Your task to perform on an android device: Open accessibility settings Image 0: 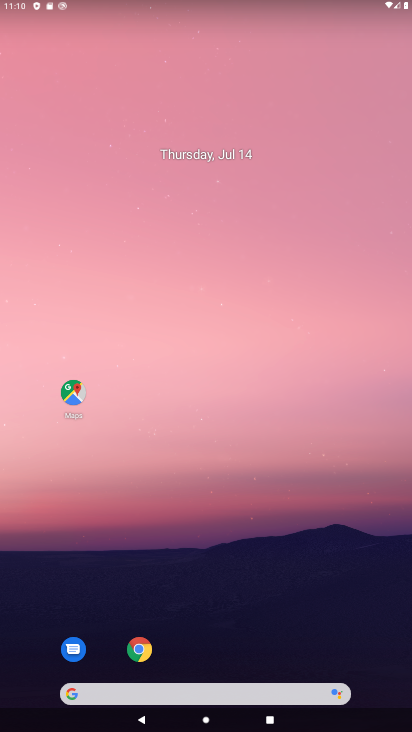
Step 0: drag from (175, 578) to (175, 157)
Your task to perform on an android device: Open accessibility settings Image 1: 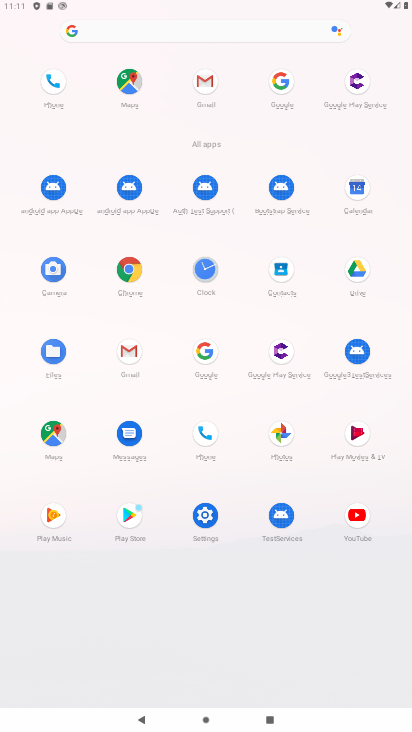
Step 1: click (210, 512)
Your task to perform on an android device: Open accessibility settings Image 2: 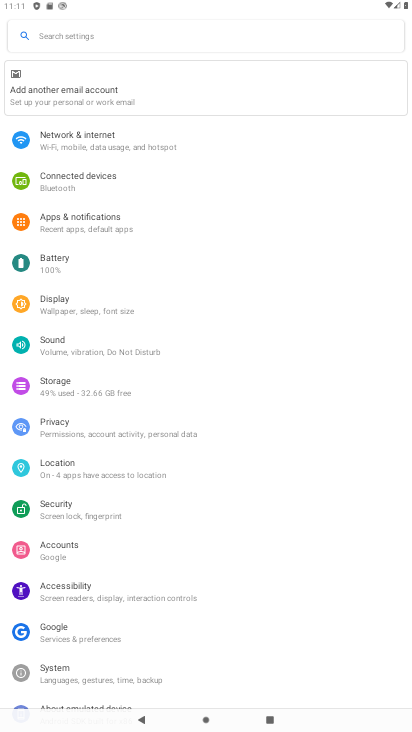
Step 2: click (73, 592)
Your task to perform on an android device: Open accessibility settings Image 3: 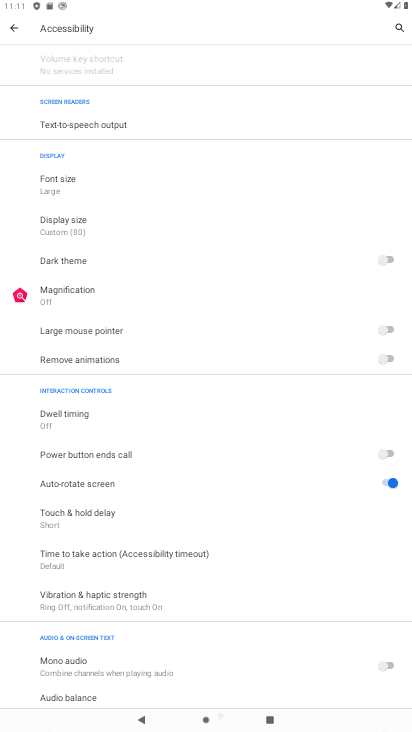
Step 3: task complete